Your task to perform on an android device: Go to accessibility settings Image 0: 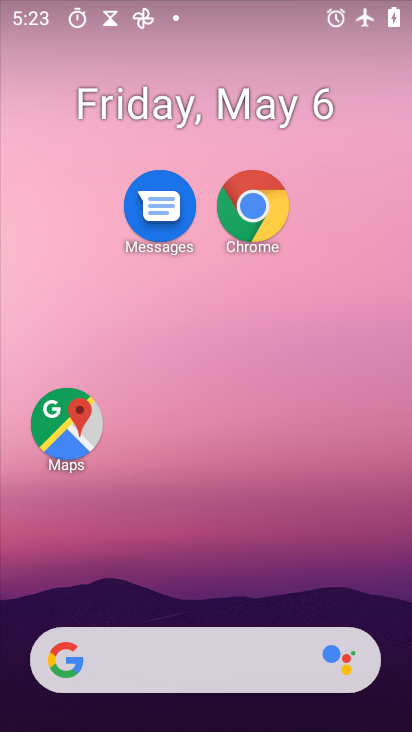
Step 0: drag from (147, 622) to (147, 301)
Your task to perform on an android device: Go to accessibility settings Image 1: 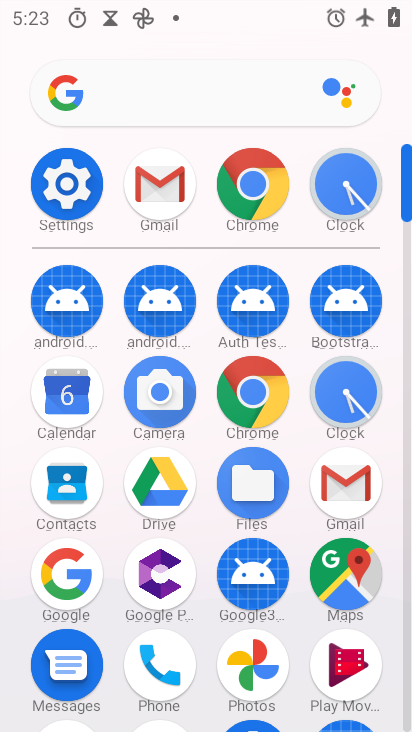
Step 1: click (74, 190)
Your task to perform on an android device: Go to accessibility settings Image 2: 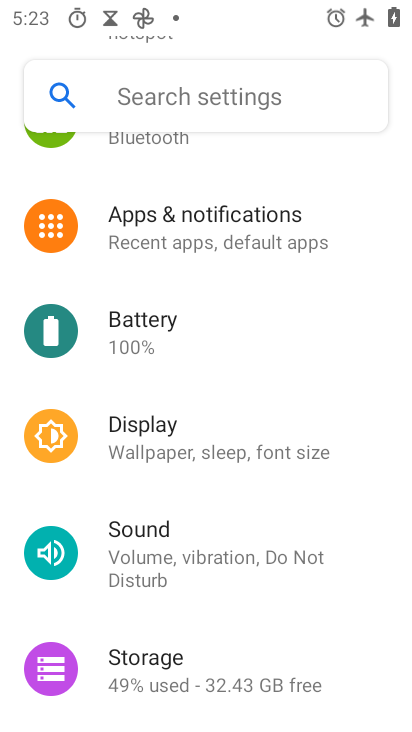
Step 2: drag from (176, 674) to (174, 325)
Your task to perform on an android device: Go to accessibility settings Image 3: 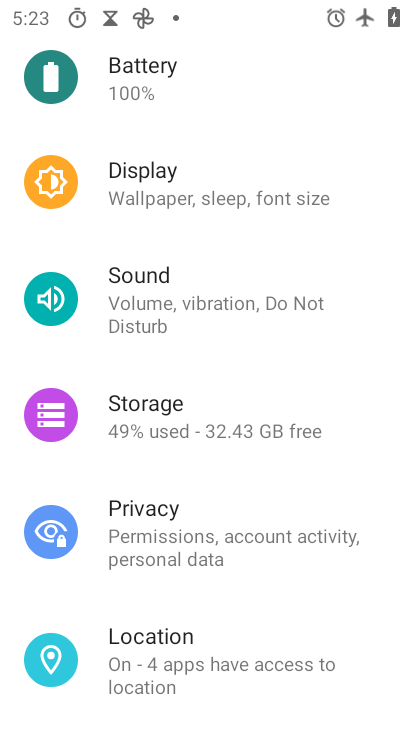
Step 3: drag from (202, 696) to (202, 290)
Your task to perform on an android device: Go to accessibility settings Image 4: 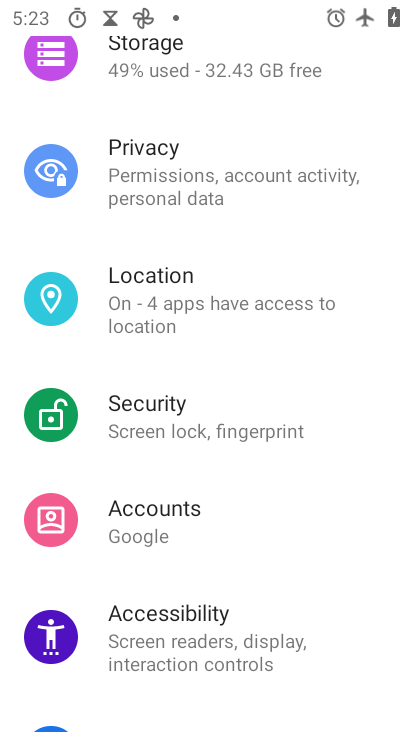
Step 4: drag from (204, 677) to (224, 369)
Your task to perform on an android device: Go to accessibility settings Image 5: 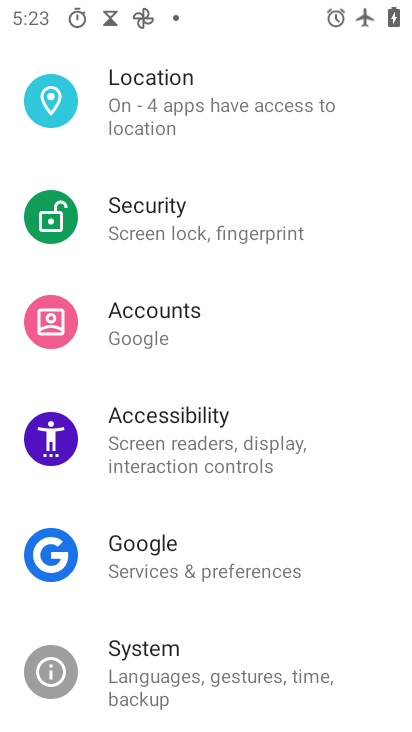
Step 5: drag from (126, 691) to (123, 386)
Your task to perform on an android device: Go to accessibility settings Image 6: 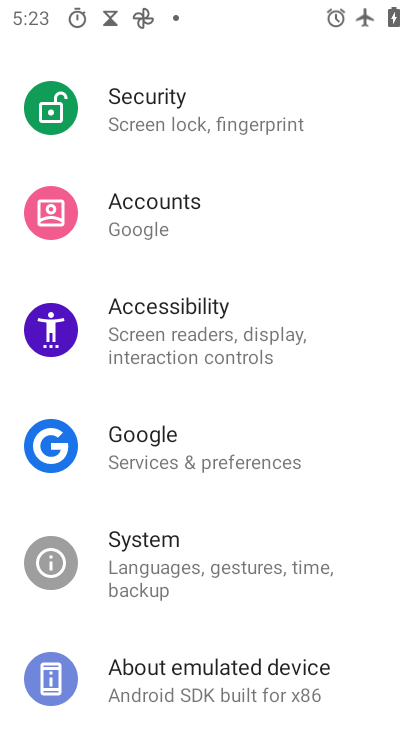
Step 6: click (205, 300)
Your task to perform on an android device: Go to accessibility settings Image 7: 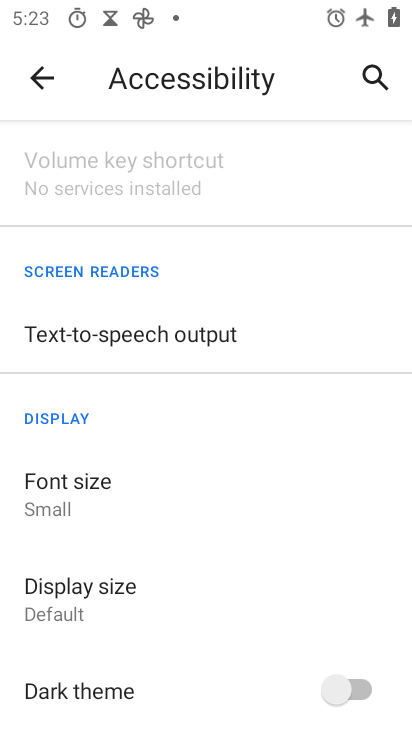
Step 7: task complete